Your task to perform on an android device: open a bookmark in the chrome app Image 0: 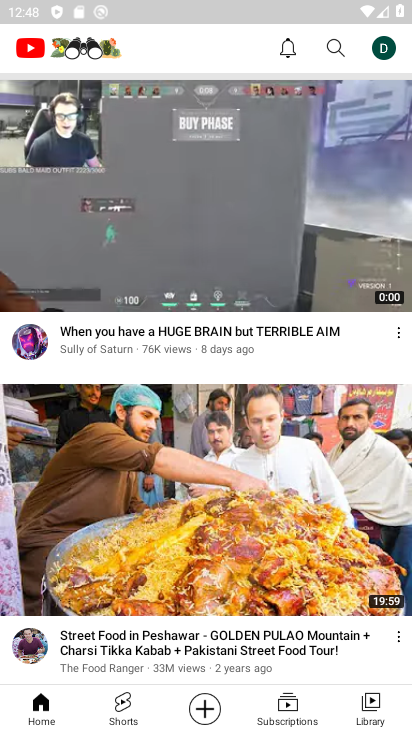
Step 0: press home button
Your task to perform on an android device: open a bookmark in the chrome app Image 1: 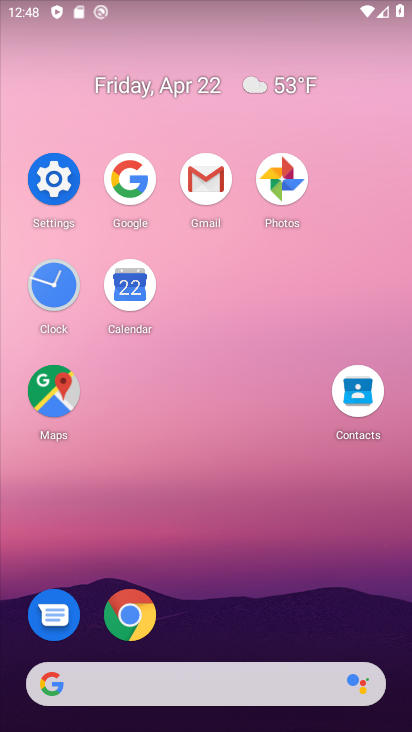
Step 1: click (137, 597)
Your task to perform on an android device: open a bookmark in the chrome app Image 2: 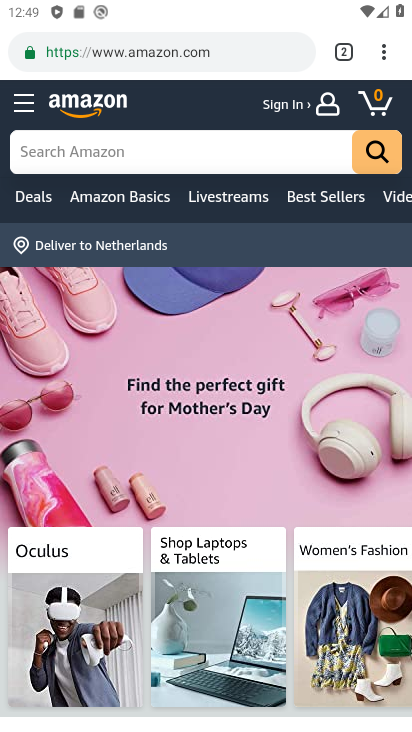
Step 2: press home button
Your task to perform on an android device: open a bookmark in the chrome app Image 3: 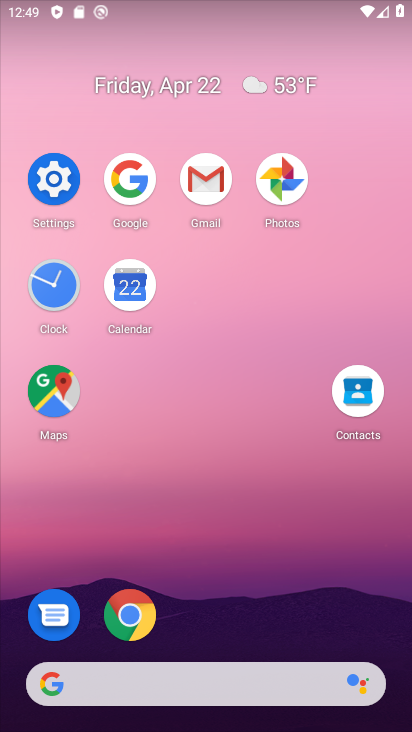
Step 3: click (123, 604)
Your task to perform on an android device: open a bookmark in the chrome app Image 4: 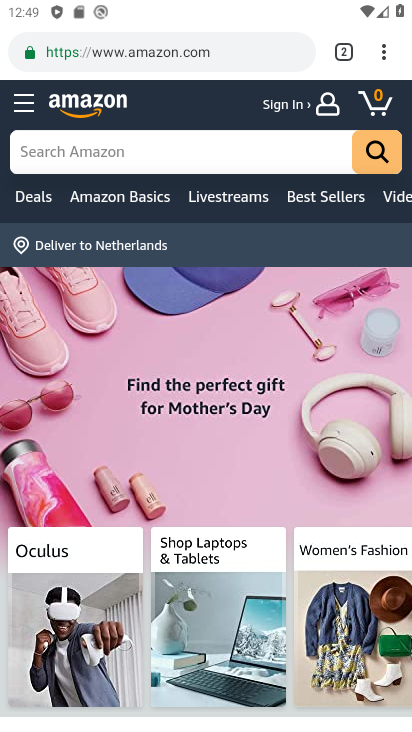
Step 4: click (388, 43)
Your task to perform on an android device: open a bookmark in the chrome app Image 5: 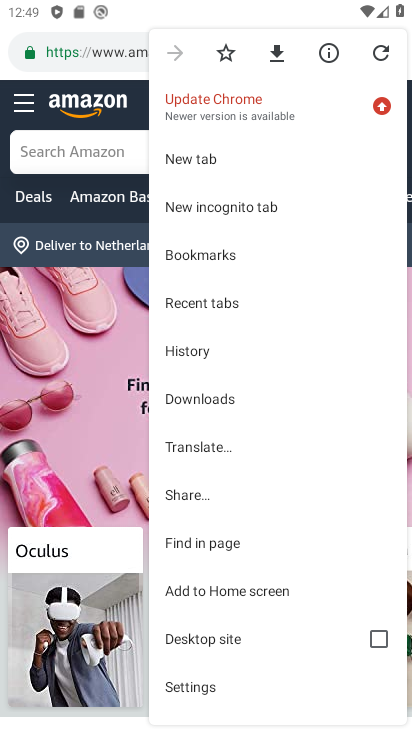
Step 5: click (226, 247)
Your task to perform on an android device: open a bookmark in the chrome app Image 6: 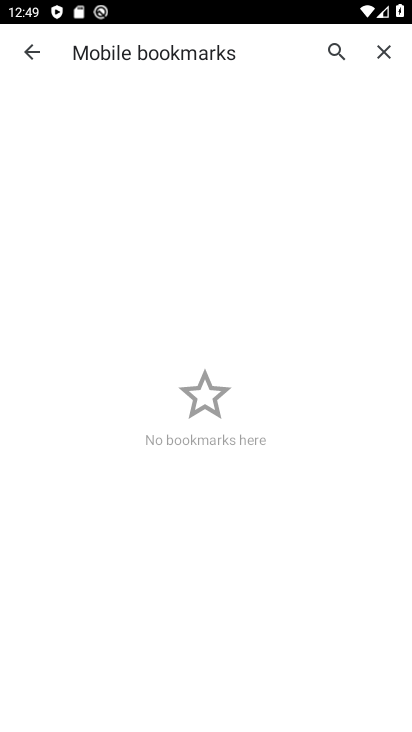
Step 6: task complete